Your task to perform on an android device: turn off notifications settings in the gmail app Image 0: 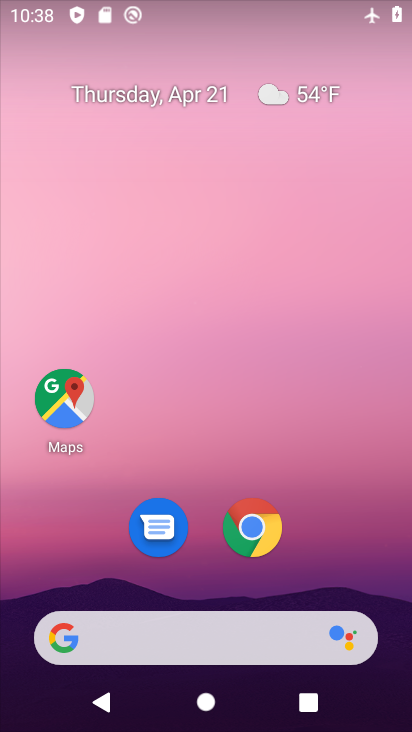
Step 0: drag from (323, 560) to (365, 168)
Your task to perform on an android device: turn off notifications settings in the gmail app Image 1: 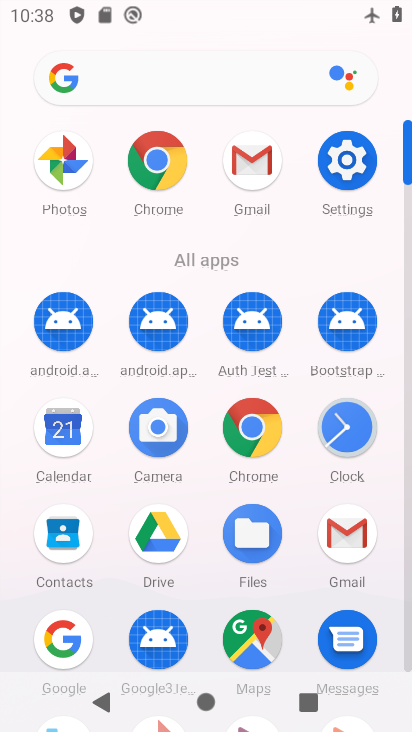
Step 1: click (341, 166)
Your task to perform on an android device: turn off notifications settings in the gmail app Image 2: 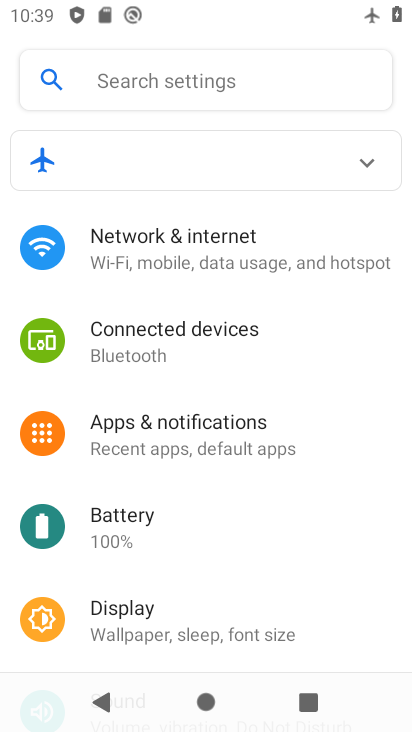
Step 2: click (232, 448)
Your task to perform on an android device: turn off notifications settings in the gmail app Image 3: 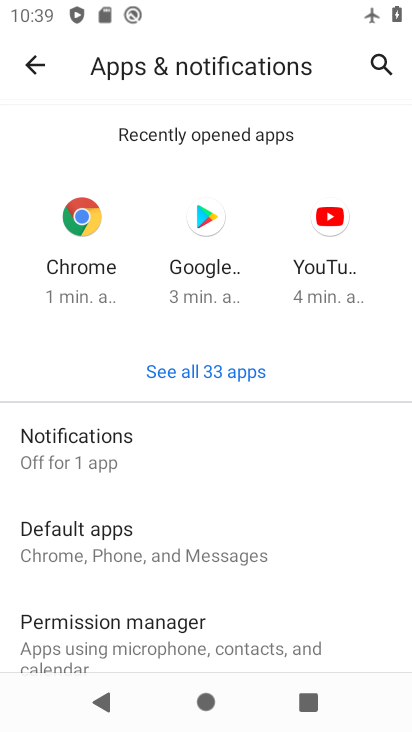
Step 3: click (129, 462)
Your task to perform on an android device: turn off notifications settings in the gmail app Image 4: 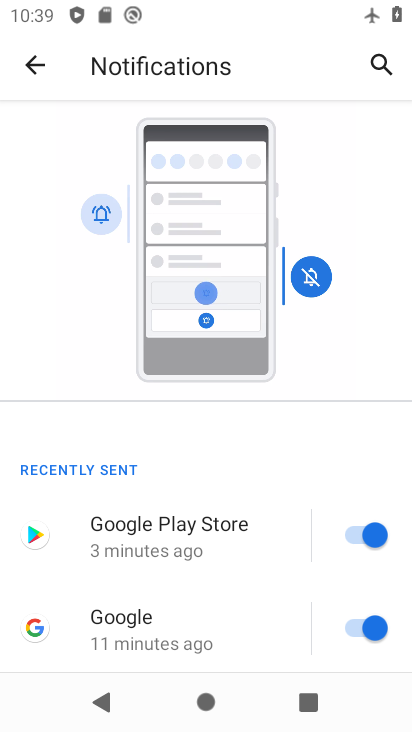
Step 4: drag from (251, 613) to (254, 487)
Your task to perform on an android device: turn off notifications settings in the gmail app Image 5: 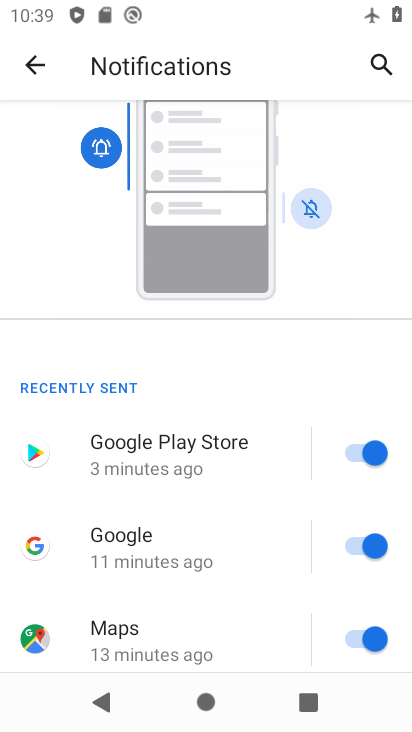
Step 5: click (370, 455)
Your task to perform on an android device: turn off notifications settings in the gmail app Image 6: 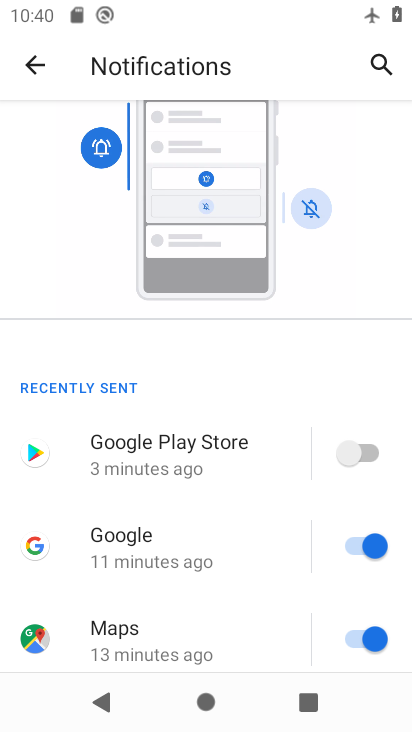
Step 6: task complete